Your task to perform on an android device: Open Google Chrome and open the bookmarks view Image 0: 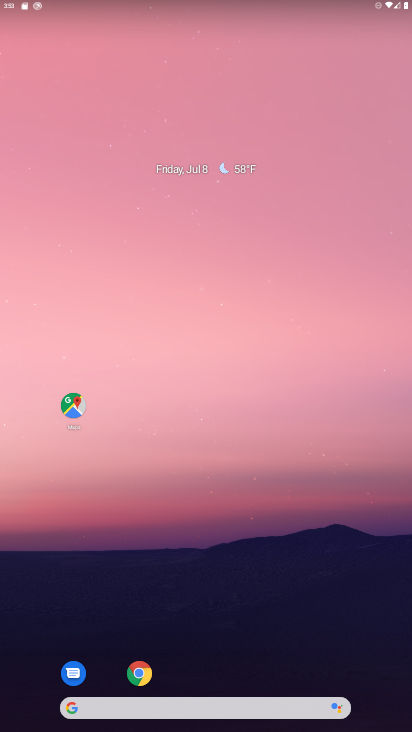
Step 0: click (142, 672)
Your task to perform on an android device: Open Google Chrome and open the bookmarks view Image 1: 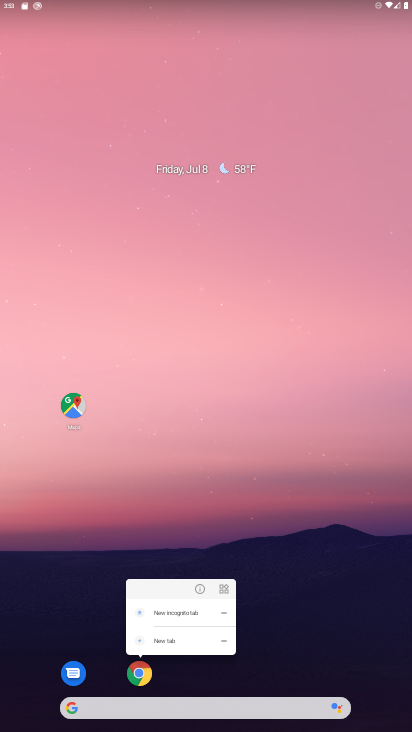
Step 1: drag from (236, 607) to (208, 450)
Your task to perform on an android device: Open Google Chrome and open the bookmarks view Image 2: 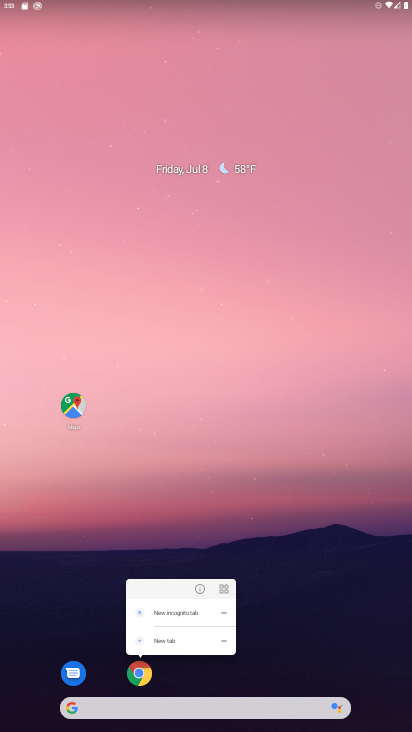
Step 2: click (139, 677)
Your task to perform on an android device: Open Google Chrome and open the bookmarks view Image 3: 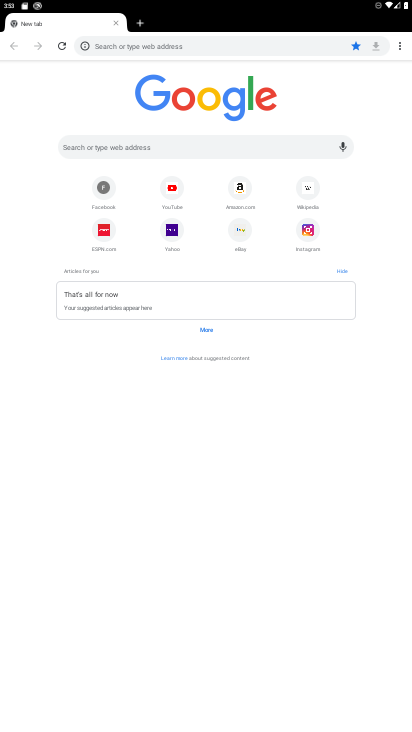
Step 3: click (398, 45)
Your task to perform on an android device: Open Google Chrome and open the bookmarks view Image 4: 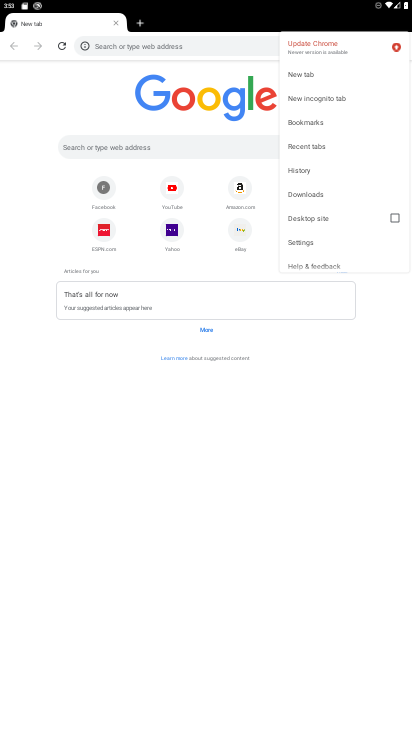
Step 4: click (292, 125)
Your task to perform on an android device: Open Google Chrome and open the bookmarks view Image 5: 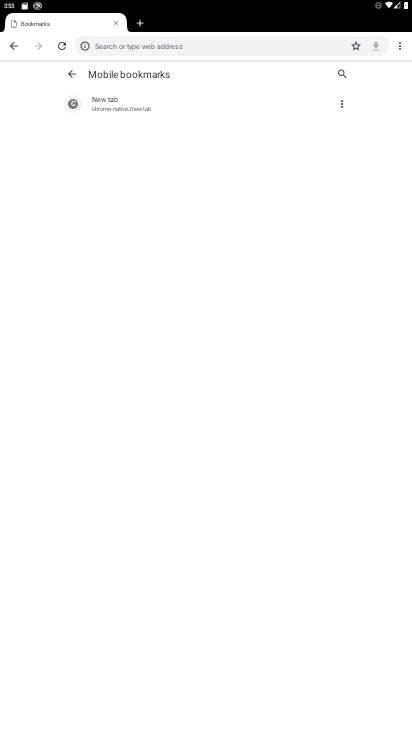
Step 5: task complete